Your task to perform on an android device: Go to battery settings Image 0: 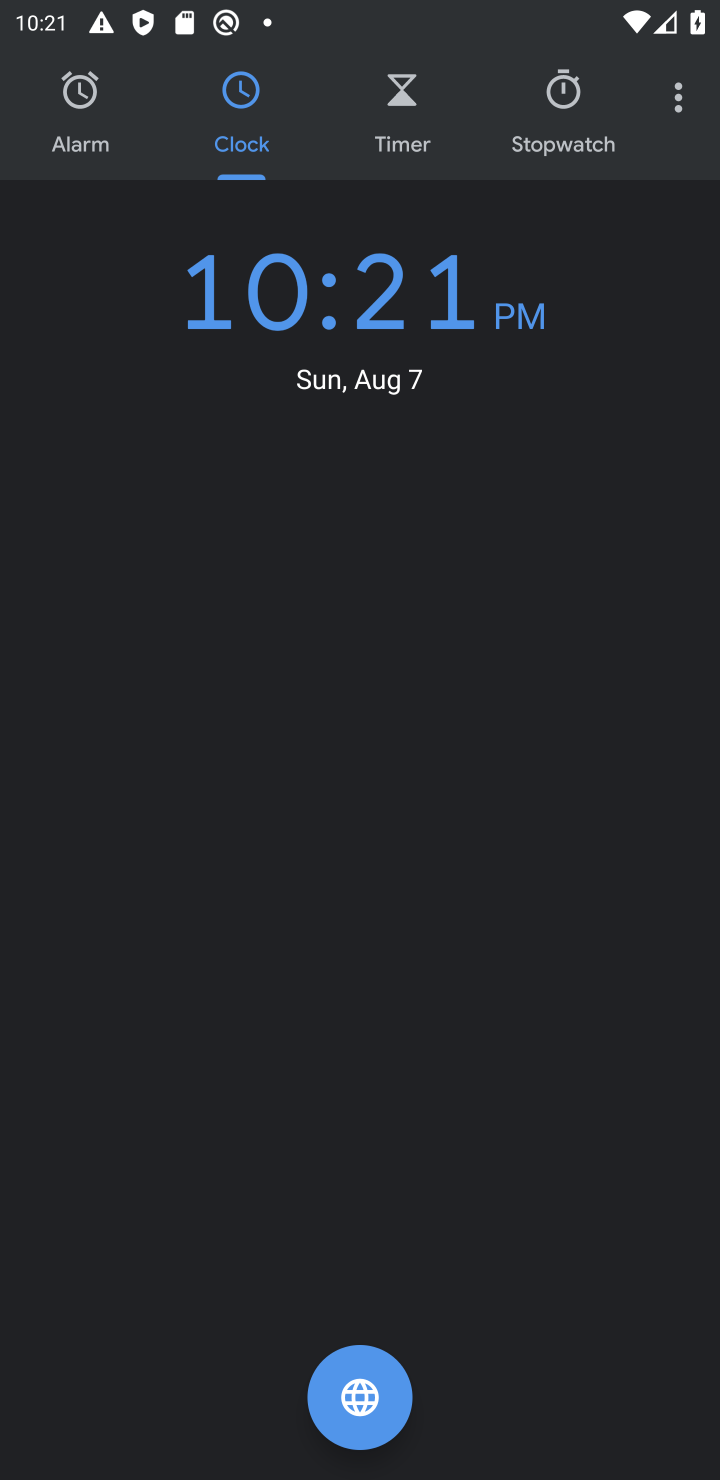
Step 0: press home button
Your task to perform on an android device: Go to battery settings Image 1: 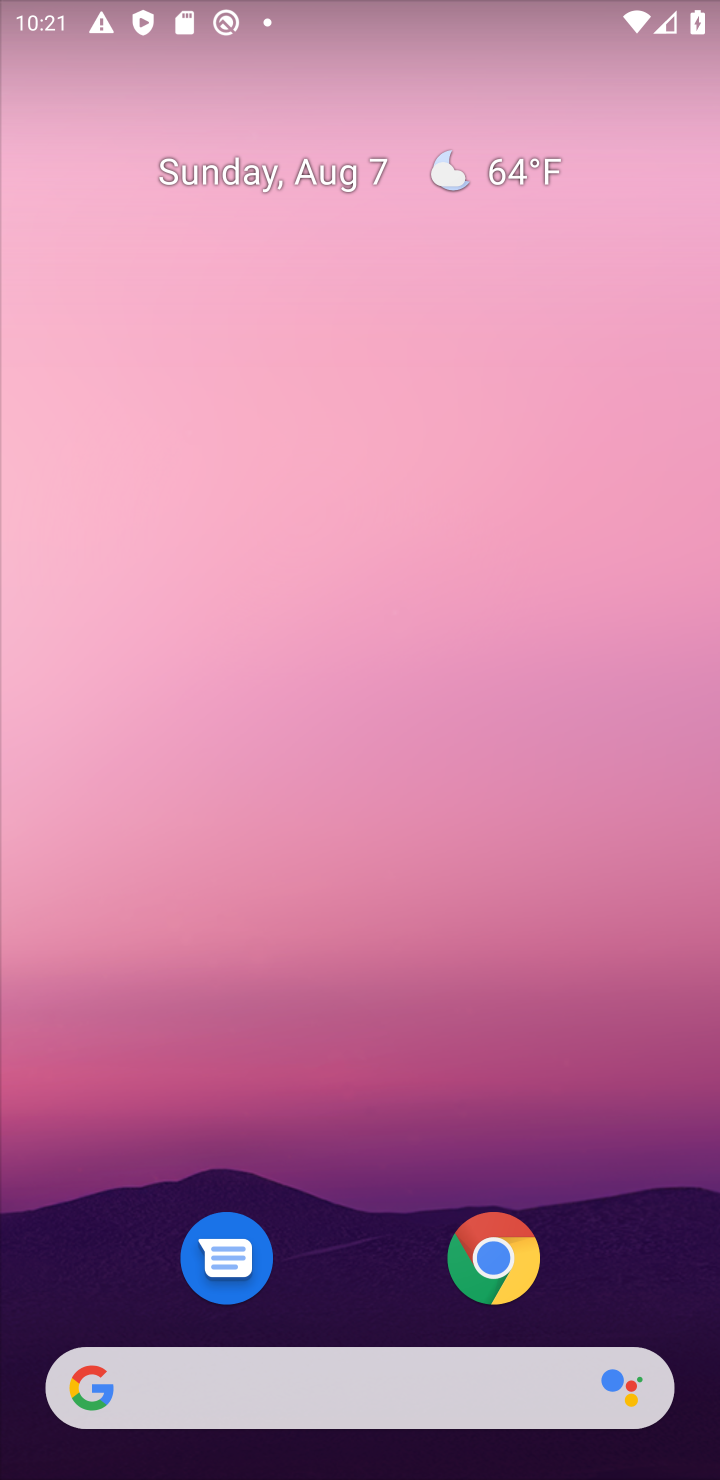
Step 1: drag from (448, 1004) to (452, 144)
Your task to perform on an android device: Go to battery settings Image 2: 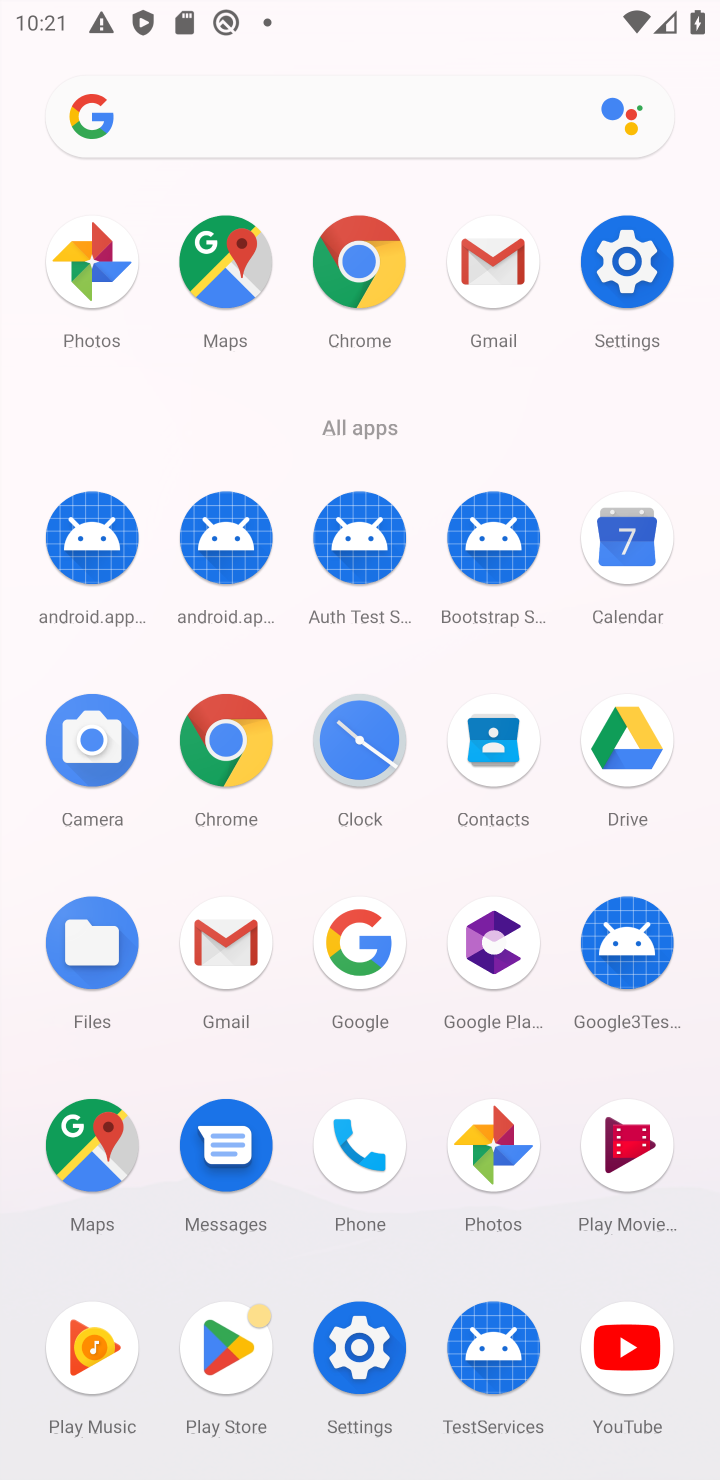
Step 2: click (607, 297)
Your task to perform on an android device: Go to battery settings Image 3: 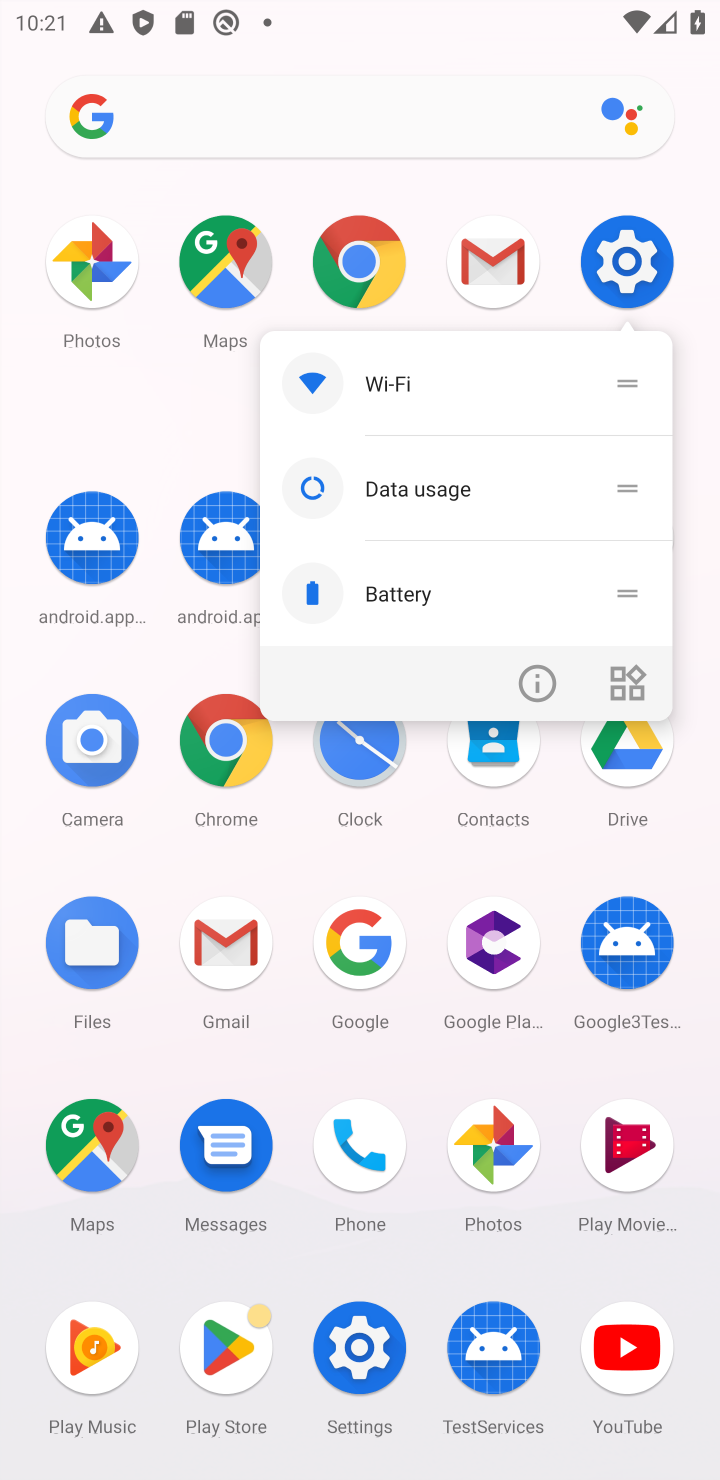
Step 3: click (607, 297)
Your task to perform on an android device: Go to battery settings Image 4: 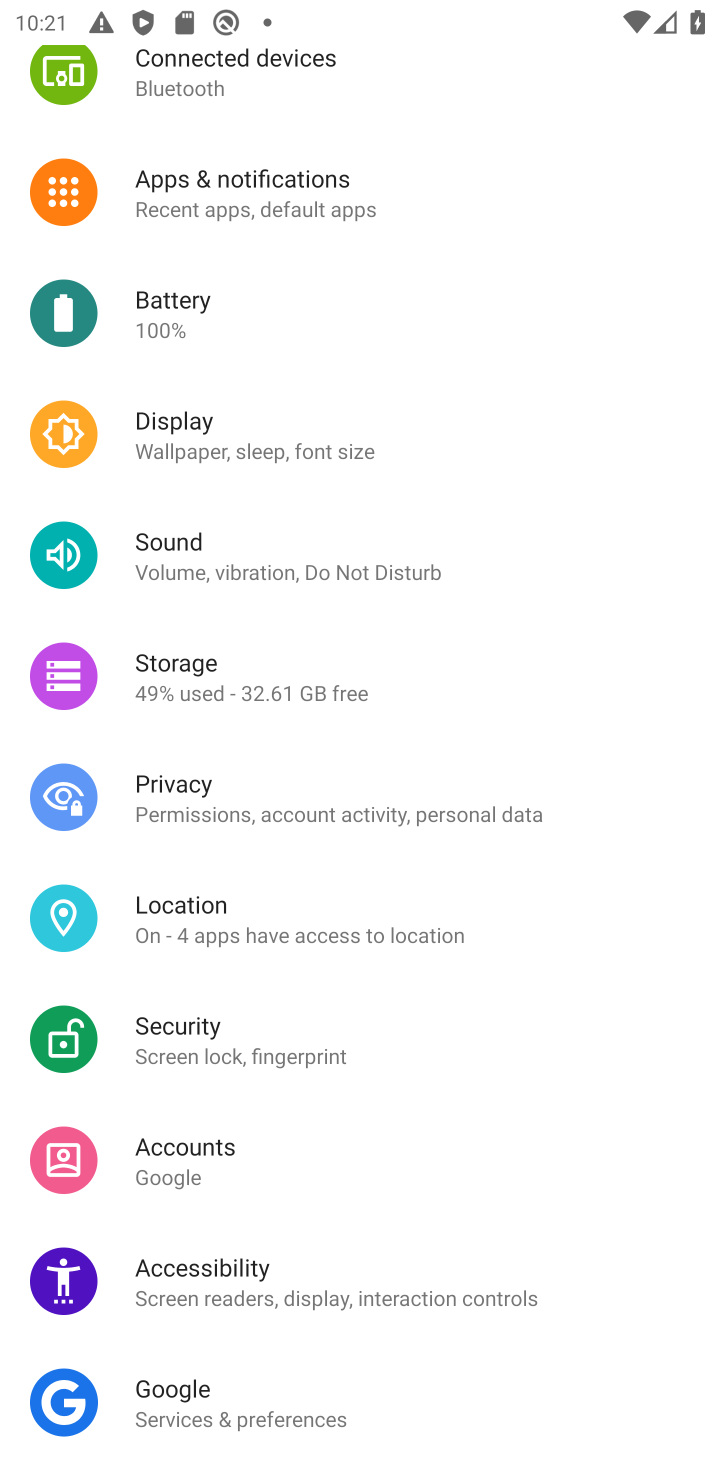
Step 4: click (139, 325)
Your task to perform on an android device: Go to battery settings Image 5: 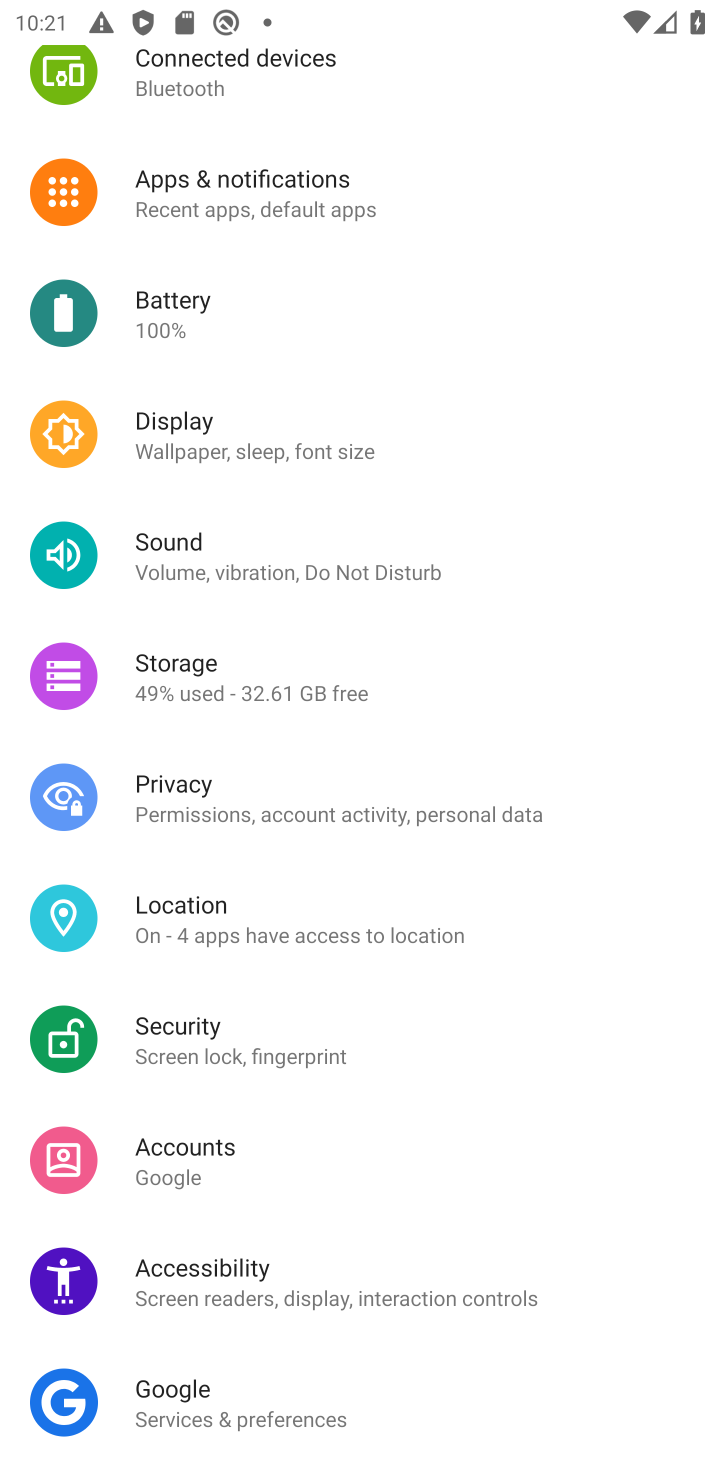
Step 5: task complete